Your task to perform on an android device: Go to eBay Image 0: 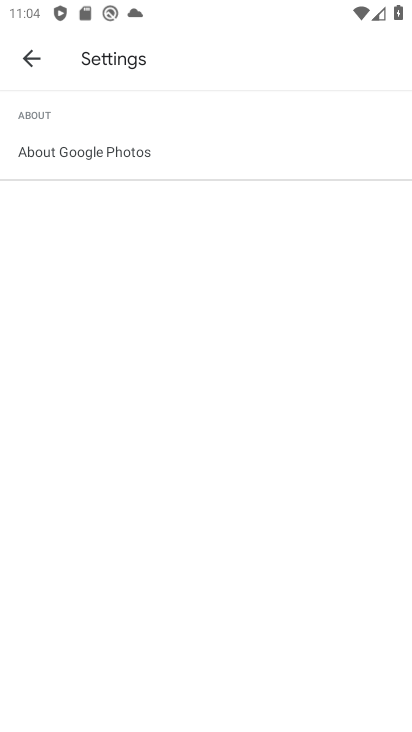
Step 0: click (30, 58)
Your task to perform on an android device: Go to eBay Image 1: 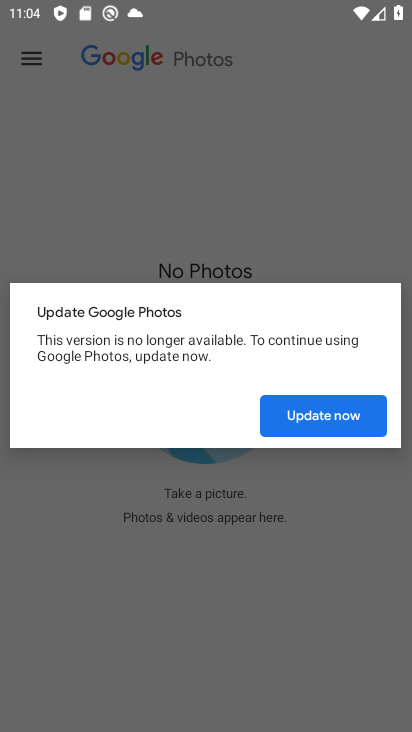
Step 1: press back button
Your task to perform on an android device: Go to eBay Image 2: 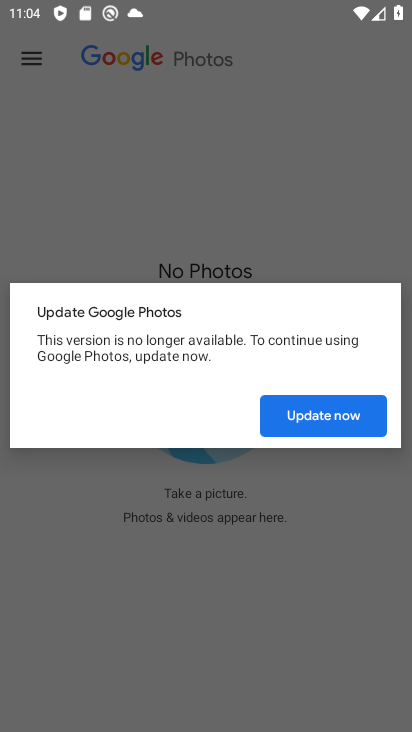
Step 2: click (350, 415)
Your task to perform on an android device: Go to eBay Image 3: 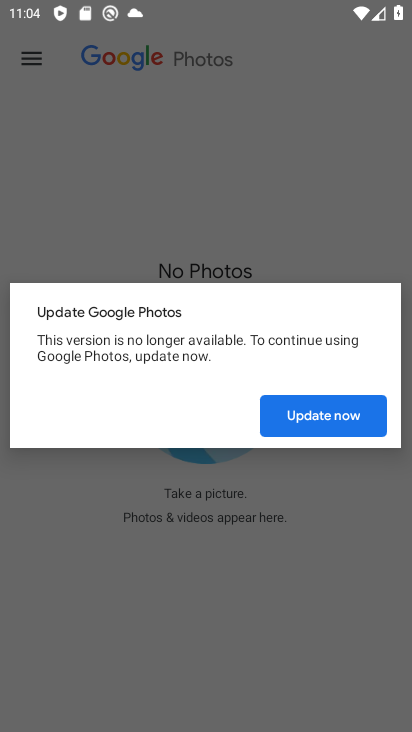
Step 3: click (350, 415)
Your task to perform on an android device: Go to eBay Image 4: 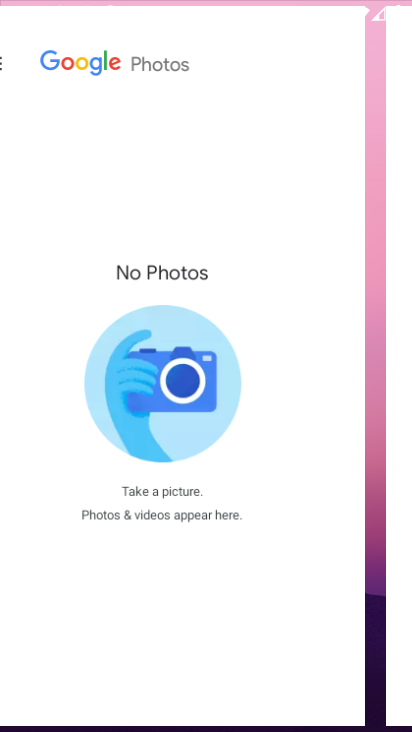
Step 4: click (345, 418)
Your task to perform on an android device: Go to eBay Image 5: 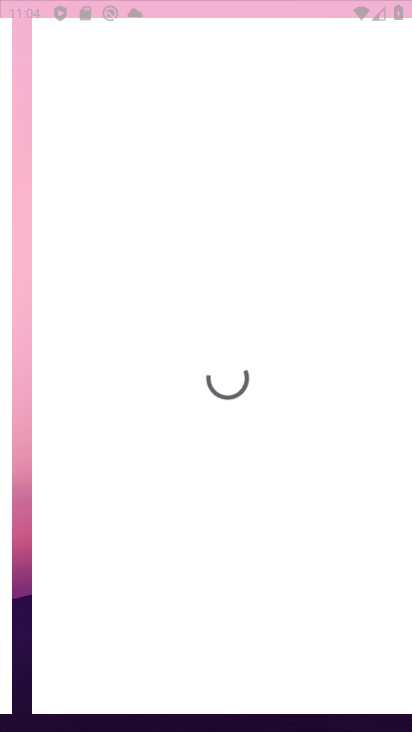
Step 5: click (337, 418)
Your task to perform on an android device: Go to eBay Image 6: 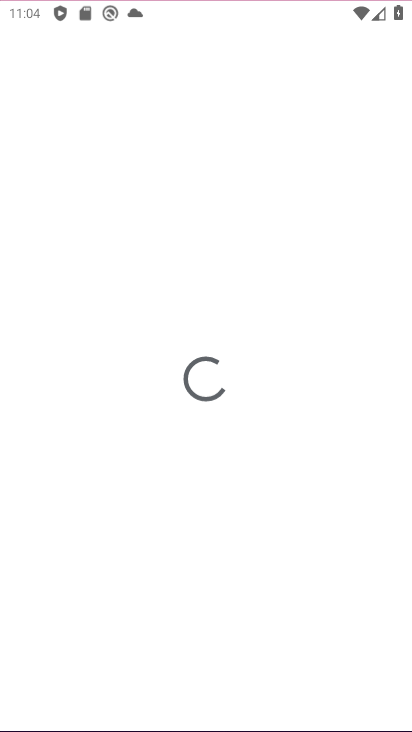
Step 6: click (337, 418)
Your task to perform on an android device: Go to eBay Image 7: 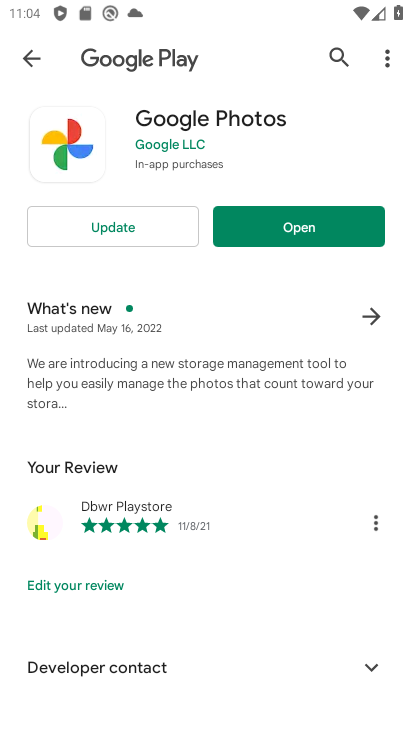
Step 7: click (332, 415)
Your task to perform on an android device: Go to eBay Image 8: 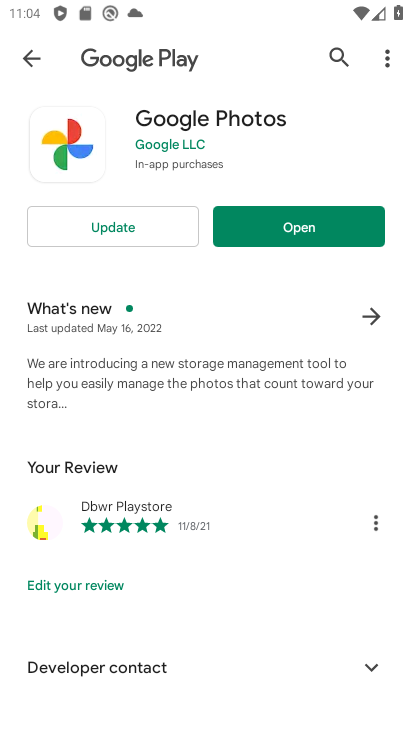
Step 8: click (325, 408)
Your task to perform on an android device: Go to eBay Image 9: 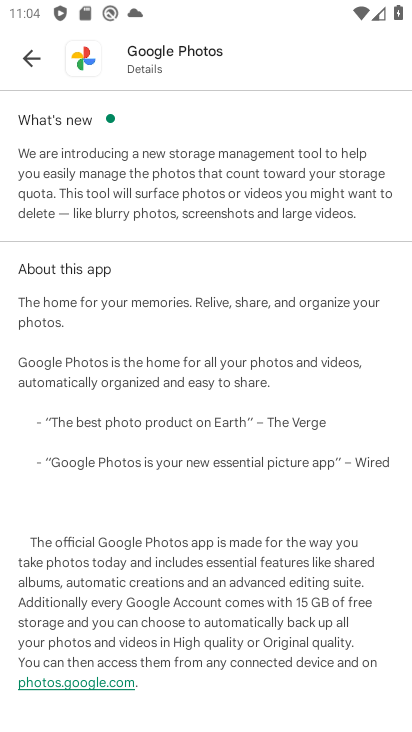
Step 9: click (148, 210)
Your task to perform on an android device: Go to eBay Image 10: 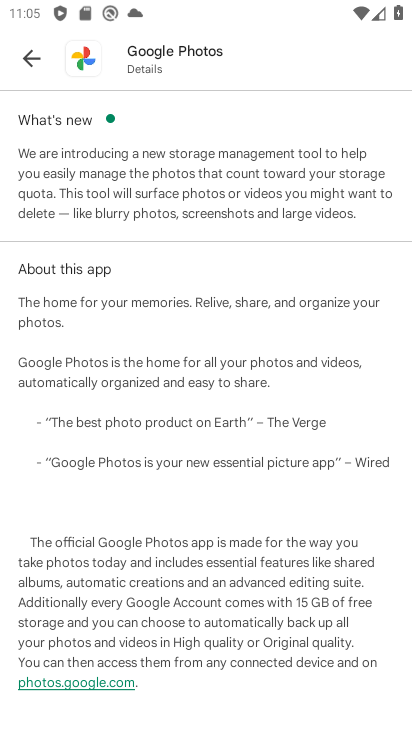
Step 10: click (25, 59)
Your task to perform on an android device: Go to eBay Image 11: 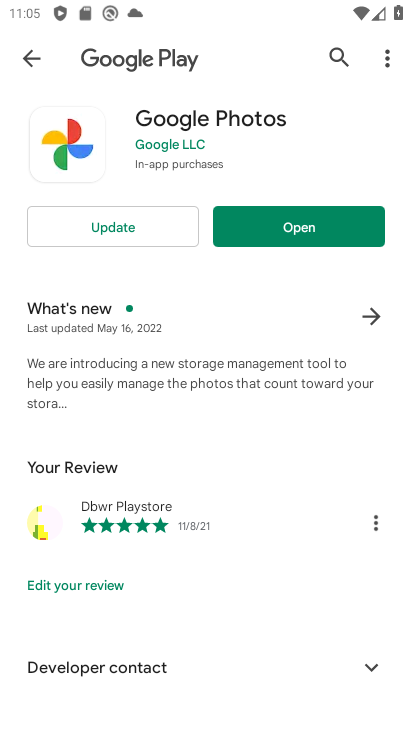
Step 11: press back button
Your task to perform on an android device: Go to eBay Image 12: 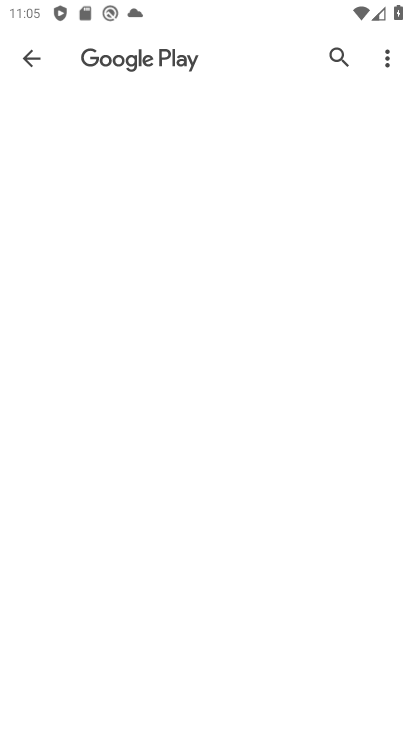
Step 12: press back button
Your task to perform on an android device: Go to eBay Image 13: 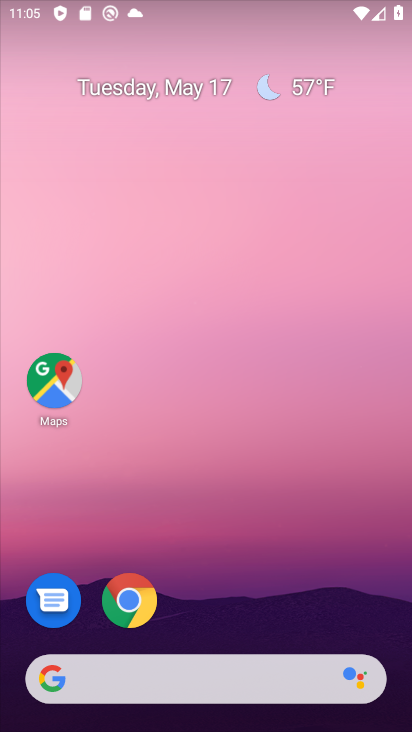
Step 13: click (318, 225)
Your task to perform on an android device: Go to eBay Image 14: 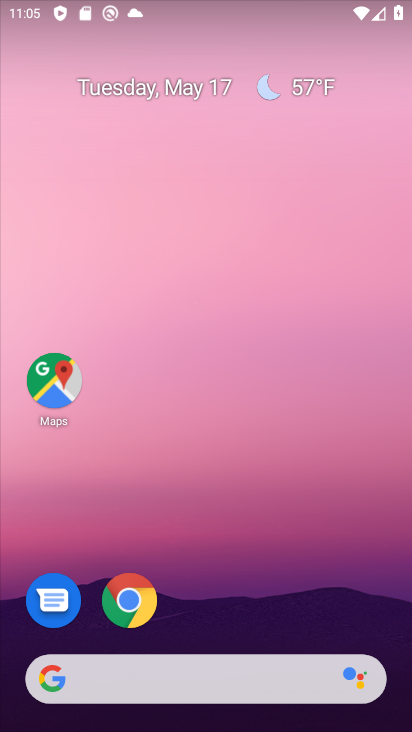
Step 14: drag from (243, 579) to (177, 61)
Your task to perform on an android device: Go to eBay Image 15: 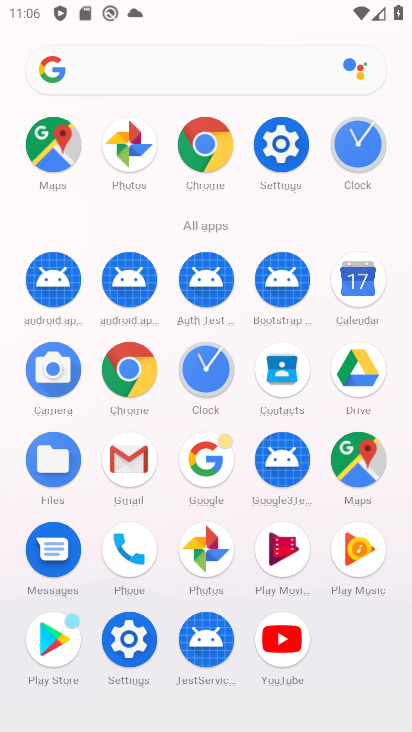
Step 15: click (193, 136)
Your task to perform on an android device: Go to eBay Image 16: 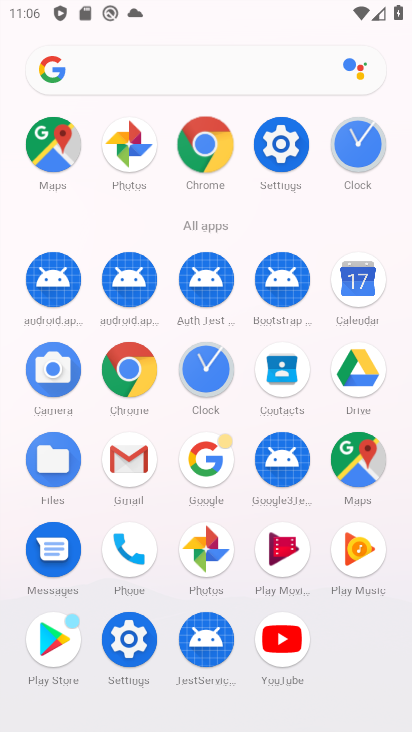
Step 16: click (194, 136)
Your task to perform on an android device: Go to eBay Image 17: 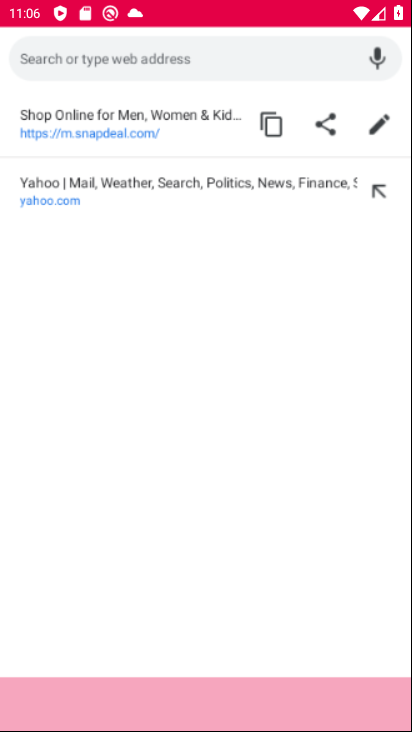
Step 17: click (198, 136)
Your task to perform on an android device: Go to eBay Image 18: 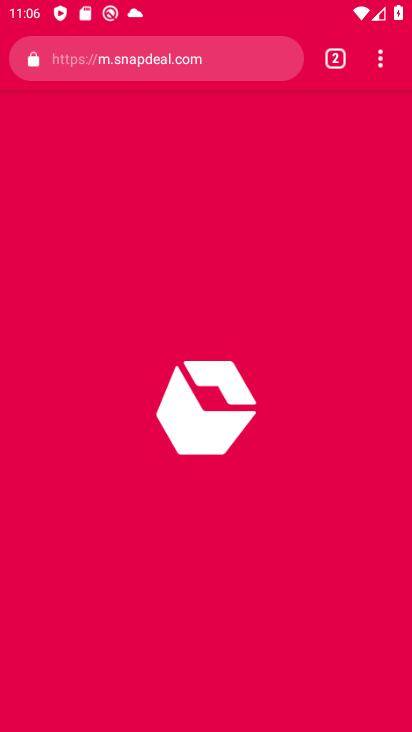
Step 18: press back button
Your task to perform on an android device: Go to eBay Image 19: 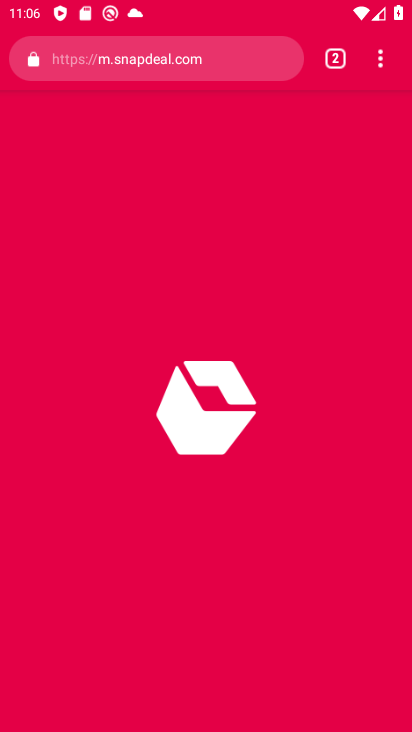
Step 19: press back button
Your task to perform on an android device: Go to eBay Image 20: 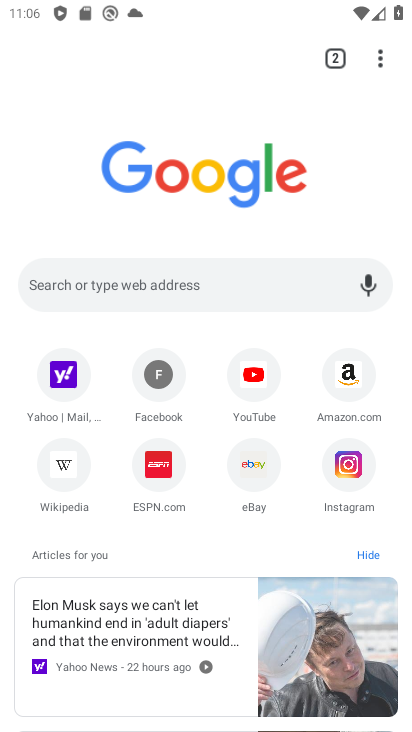
Step 20: press back button
Your task to perform on an android device: Go to eBay Image 21: 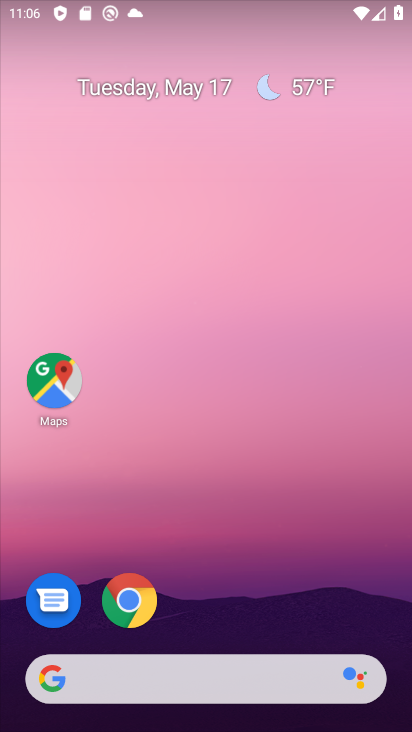
Step 21: drag from (256, 544) to (210, 131)
Your task to perform on an android device: Go to eBay Image 22: 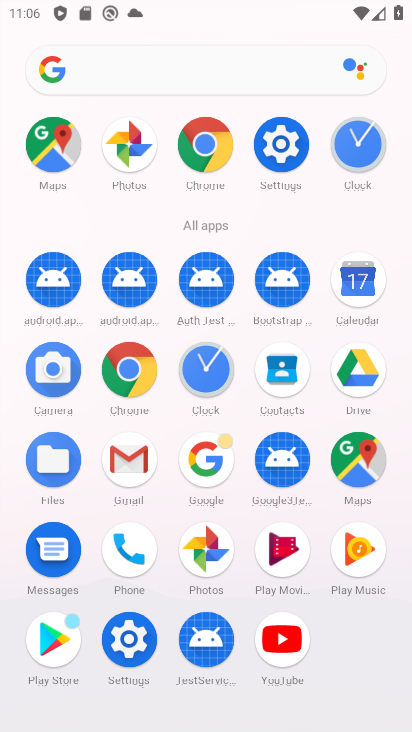
Step 22: click (196, 144)
Your task to perform on an android device: Go to eBay Image 23: 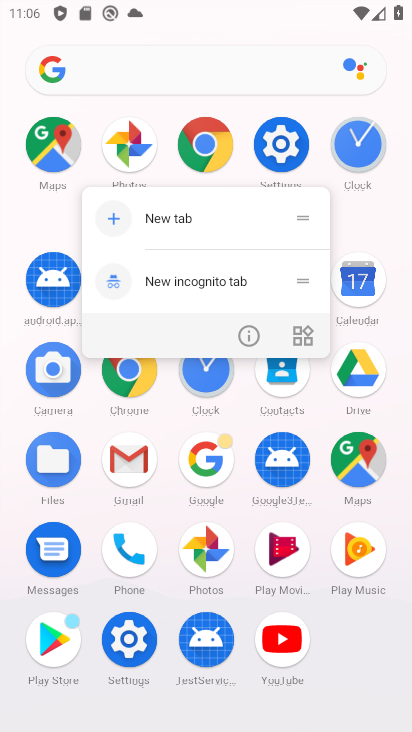
Step 23: click (213, 168)
Your task to perform on an android device: Go to eBay Image 24: 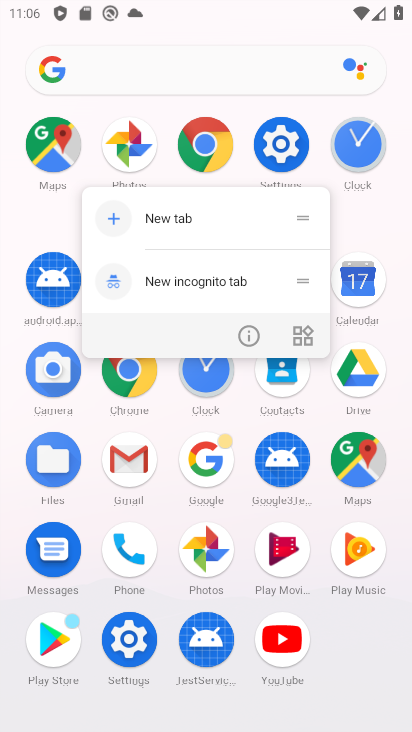
Step 24: click (206, 142)
Your task to perform on an android device: Go to eBay Image 25: 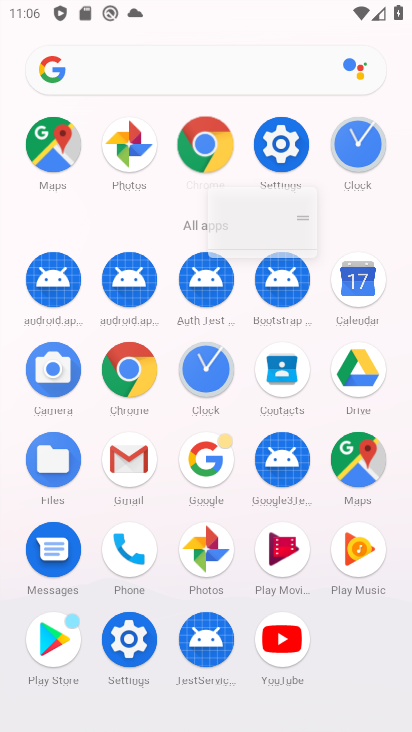
Step 25: click (206, 142)
Your task to perform on an android device: Go to eBay Image 26: 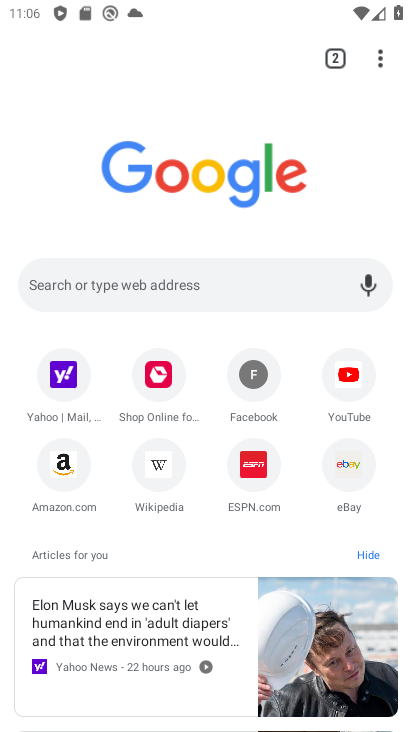
Step 26: click (337, 472)
Your task to perform on an android device: Go to eBay Image 27: 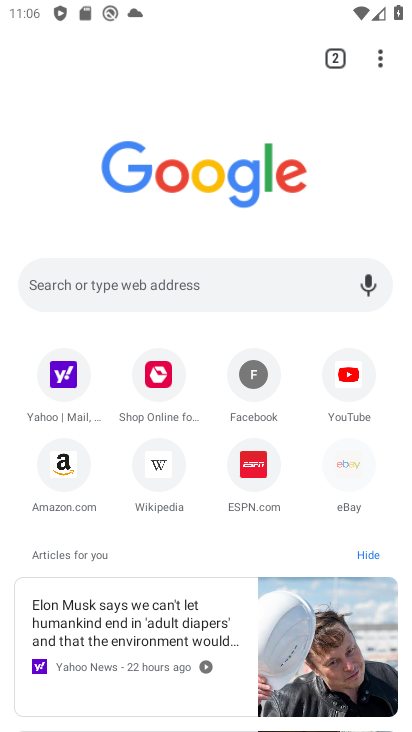
Step 27: click (346, 469)
Your task to perform on an android device: Go to eBay Image 28: 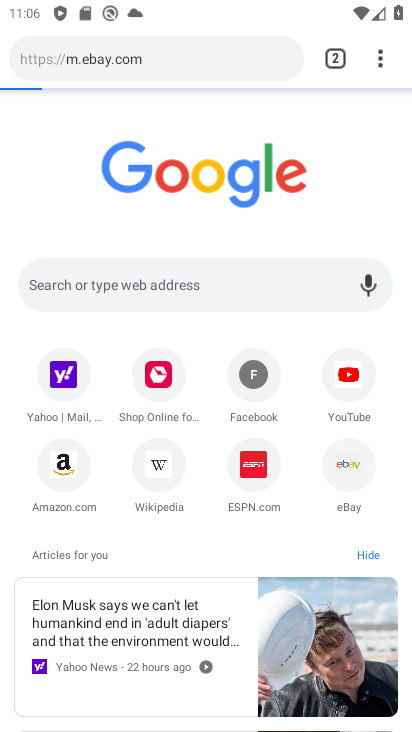
Step 28: click (346, 469)
Your task to perform on an android device: Go to eBay Image 29: 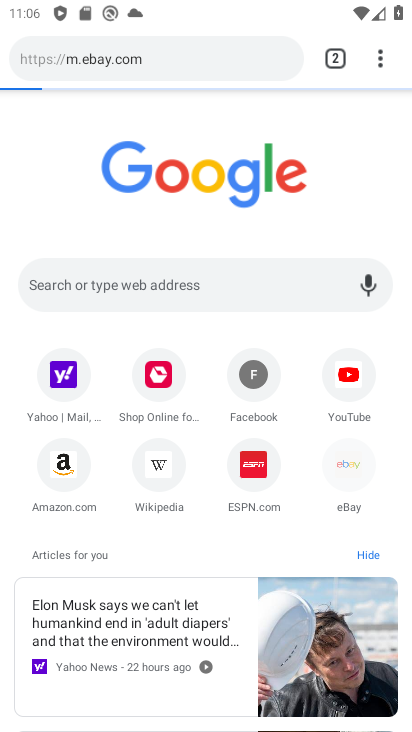
Step 29: click (351, 469)
Your task to perform on an android device: Go to eBay Image 30: 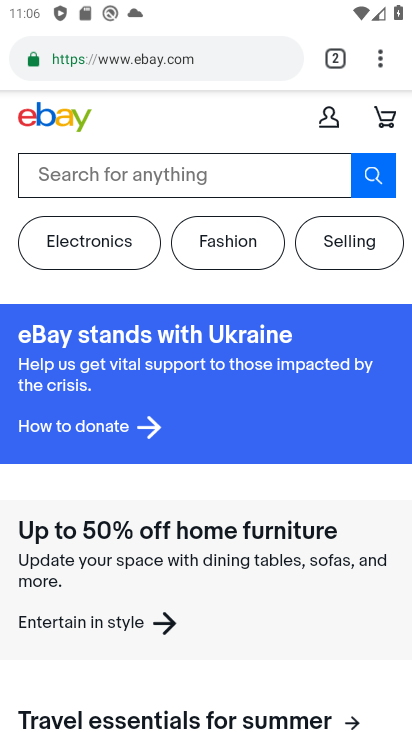
Step 30: task complete